Your task to perform on an android device: Open maps Image 0: 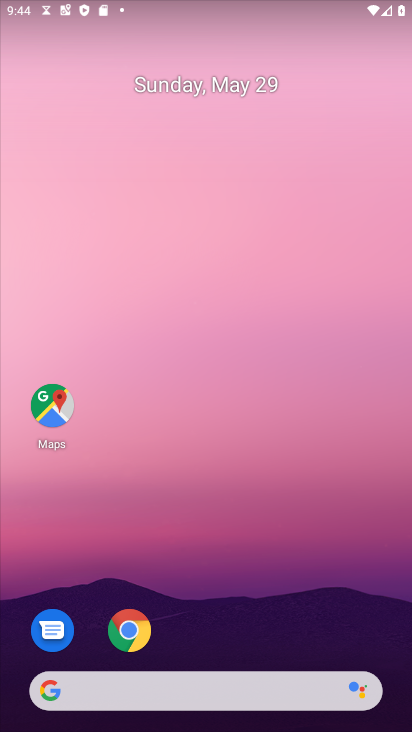
Step 0: click (49, 404)
Your task to perform on an android device: Open maps Image 1: 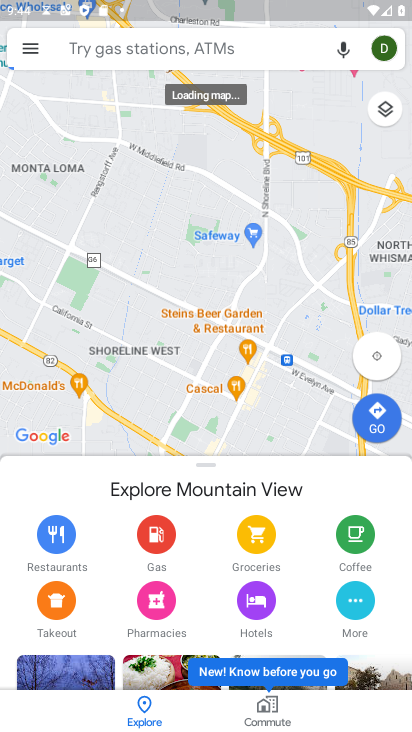
Step 1: task complete